Your task to perform on an android device: check android version Image 0: 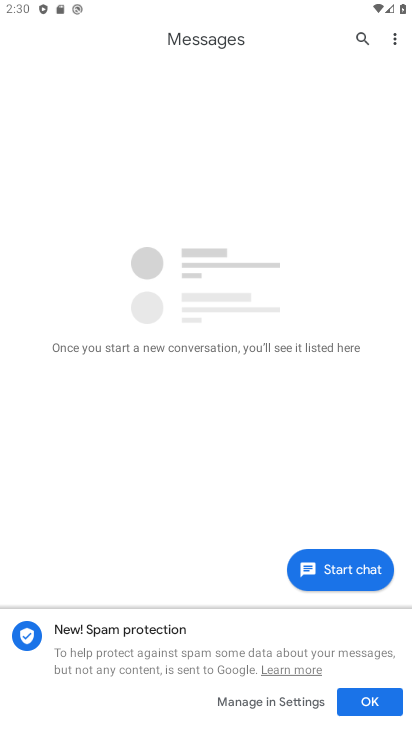
Step 0: press home button
Your task to perform on an android device: check android version Image 1: 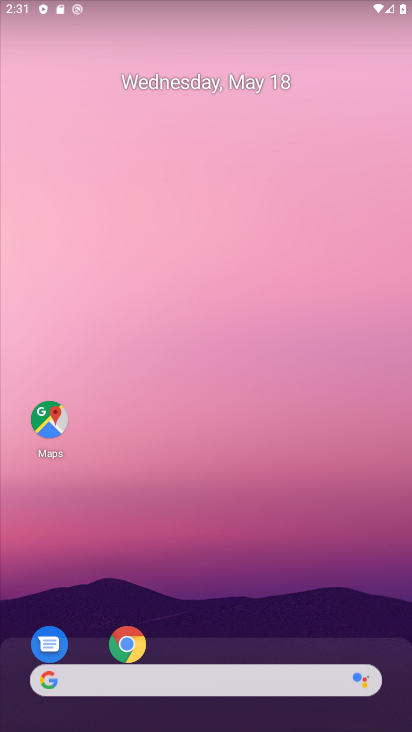
Step 1: drag from (182, 686) to (207, 112)
Your task to perform on an android device: check android version Image 2: 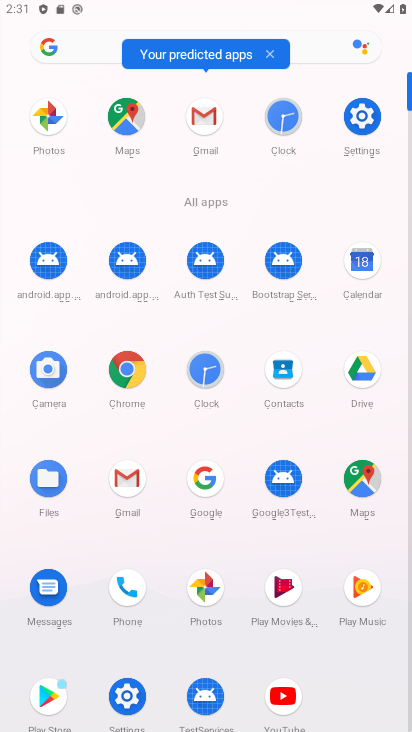
Step 2: click (369, 111)
Your task to perform on an android device: check android version Image 3: 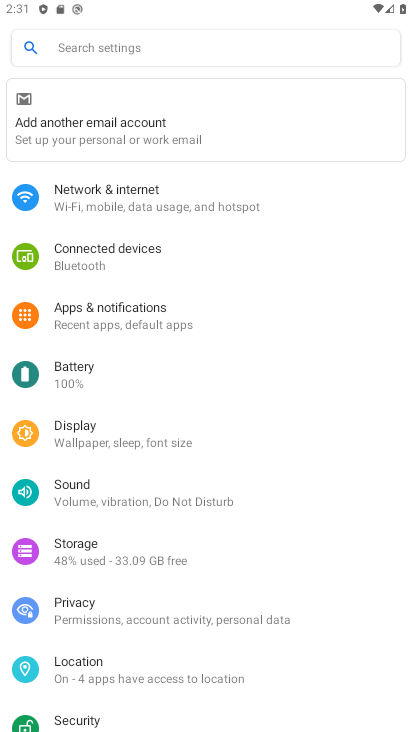
Step 3: drag from (206, 655) to (206, 188)
Your task to perform on an android device: check android version Image 4: 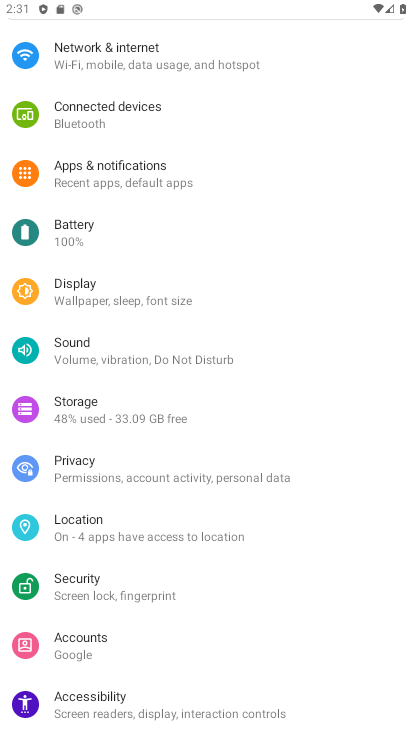
Step 4: drag from (163, 658) to (173, 199)
Your task to perform on an android device: check android version Image 5: 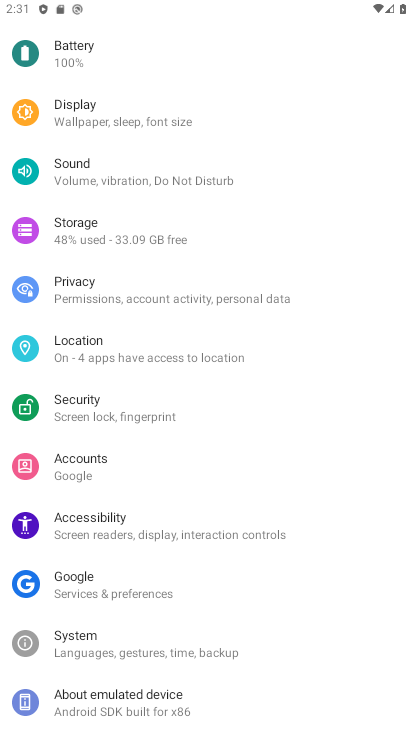
Step 5: drag from (85, 707) to (122, 289)
Your task to perform on an android device: check android version Image 6: 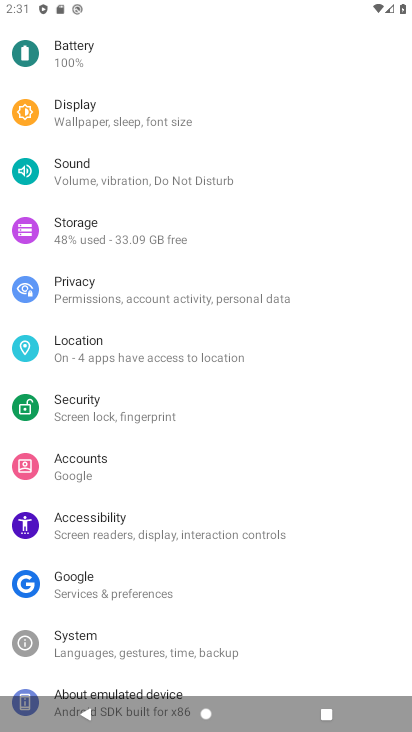
Step 6: drag from (131, 670) to (133, 246)
Your task to perform on an android device: check android version Image 7: 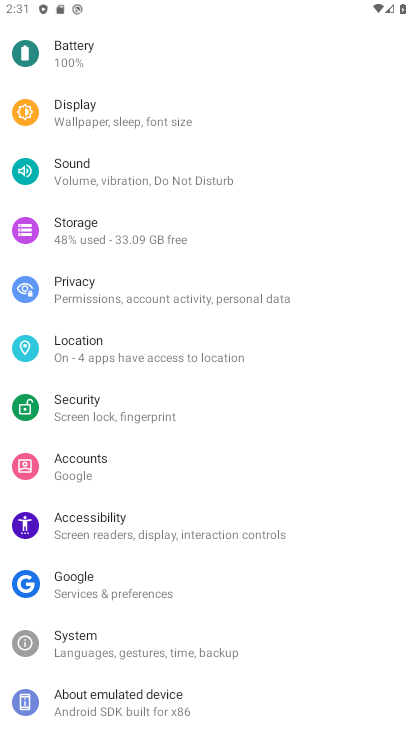
Step 7: click (109, 705)
Your task to perform on an android device: check android version Image 8: 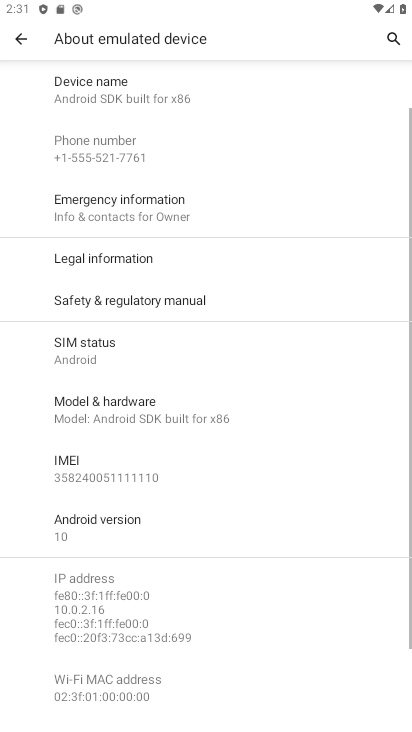
Step 8: task complete